Your task to perform on an android device: turn on wifi Image 0: 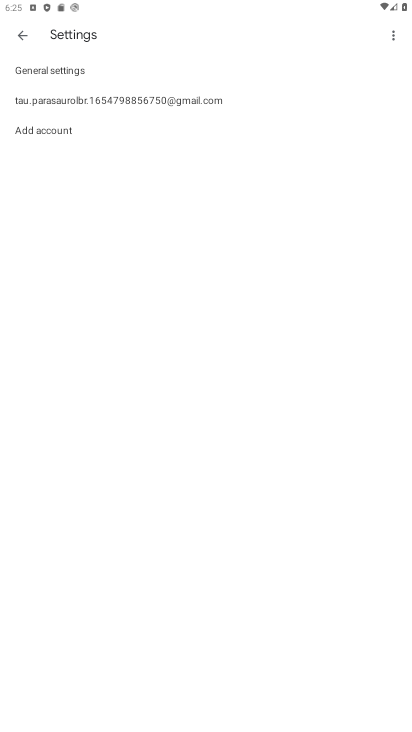
Step 0: press home button
Your task to perform on an android device: turn on wifi Image 1: 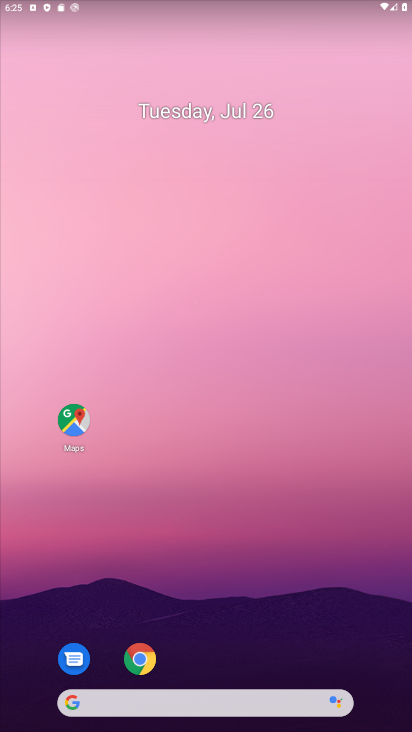
Step 1: drag from (227, 600) to (224, 286)
Your task to perform on an android device: turn on wifi Image 2: 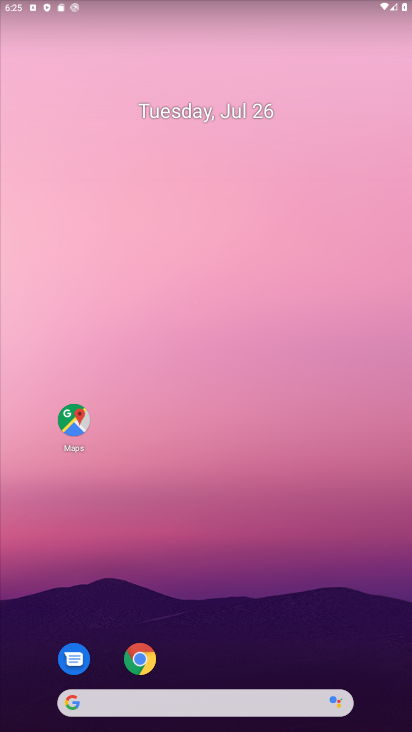
Step 2: drag from (241, 523) to (249, 208)
Your task to perform on an android device: turn on wifi Image 3: 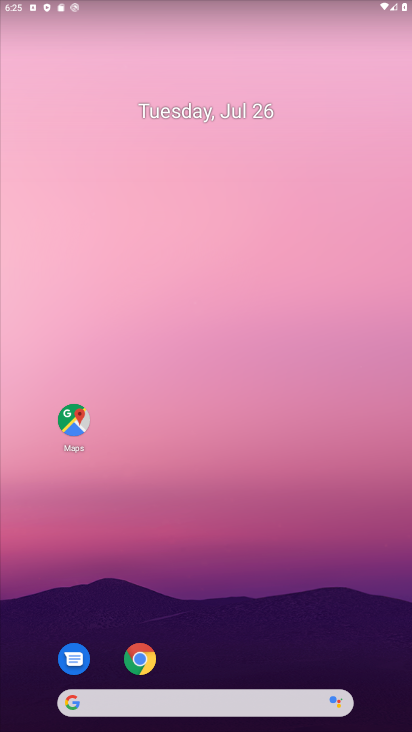
Step 3: drag from (255, 611) to (252, 125)
Your task to perform on an android device: turn on wifi Image 4: 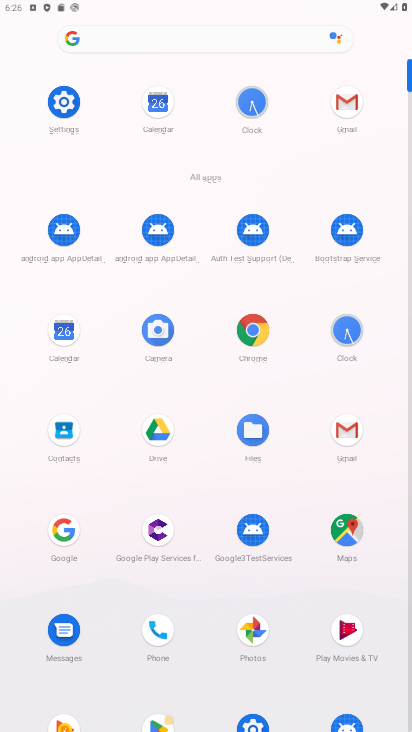
Step 4: click (58, 113)
Your task to perform on an android device: turn on wifi Image 5: 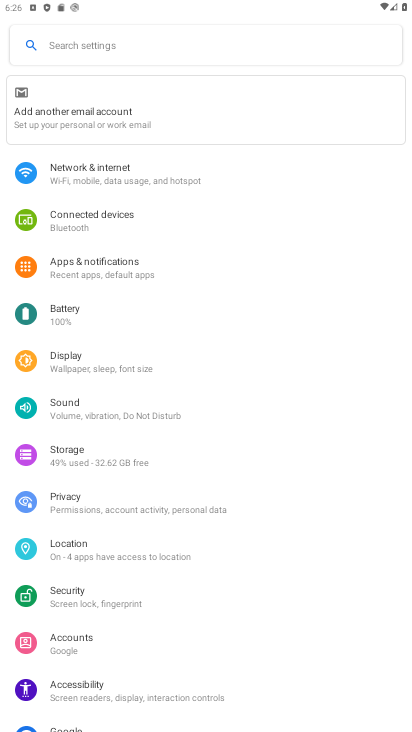
Step 5: click (152, 172)
Your task to perform on an android device: turn on wifi Image 6: 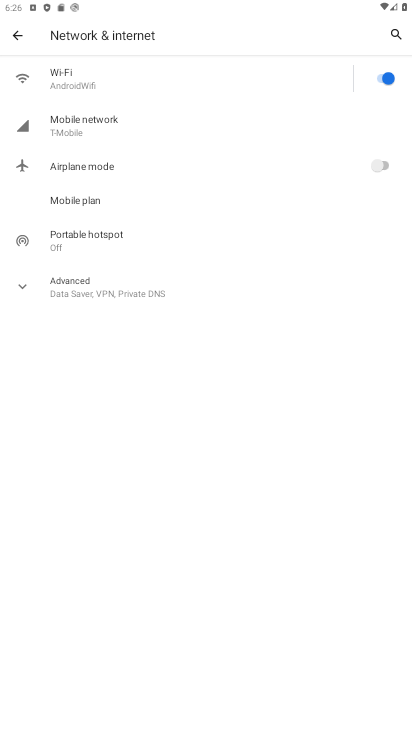
Step 6: task complete